Your task to perform on an android device: turn on priority inbox in the gmail app Image 0: 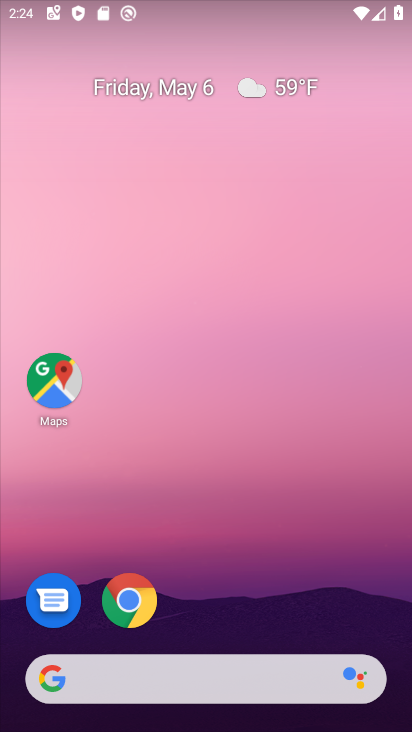
Step 0: drag from (210, 551) to (246, 49)
Your task to perform on an android device: turn on priority inbox in the gmail app Image 1: 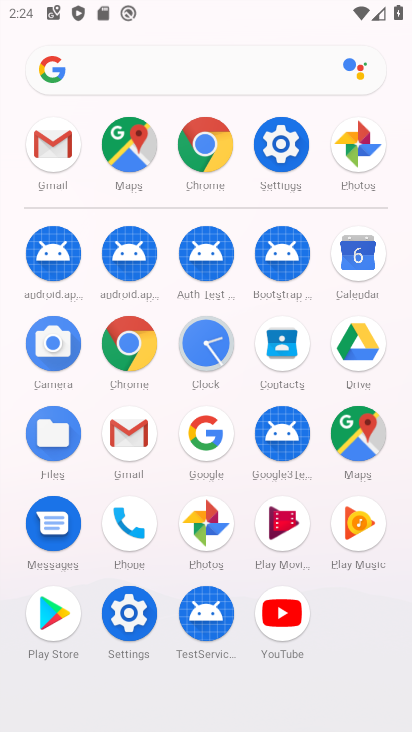
Step 1: click (127, 431)
Your task to perform on an android device: turn on priority inbox in the gmail app Image 2: 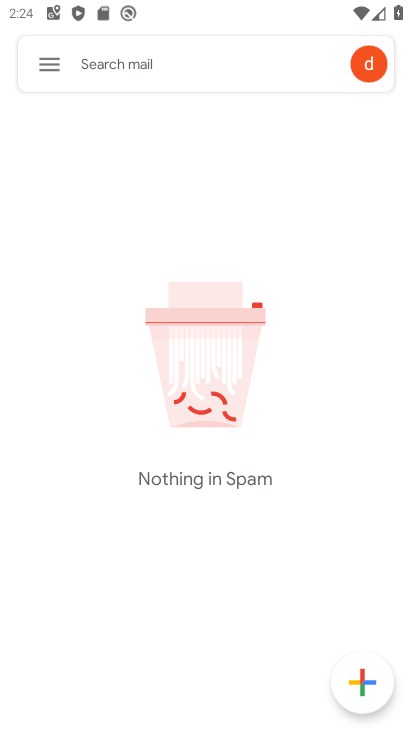
Step 2: click (53, 61)
Your task to perform on an android device: turn on priority inbox in the gmail app Image 3: 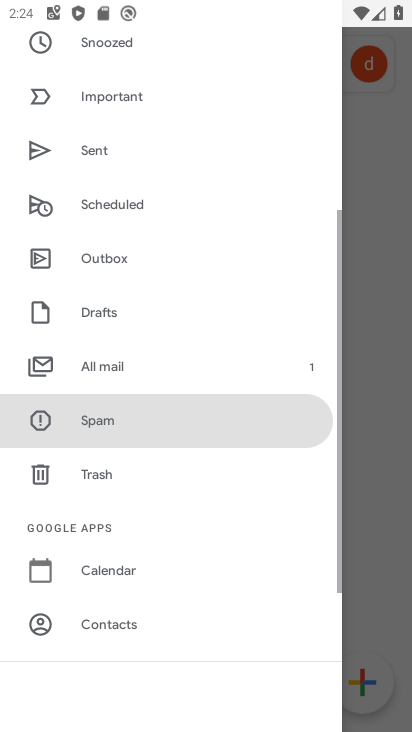
Step 3: drag from (196, 546) to (231, 140)
Your task to perform on an android device: turn on priority inbox in the gmail app Image 4: 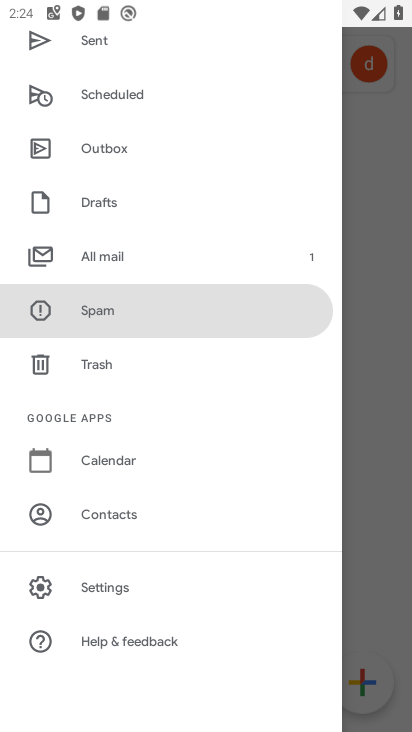
Step 4: click (117, 588)
Your task to perform on an android device: turn on priority inbox in the gmail app Image 5: 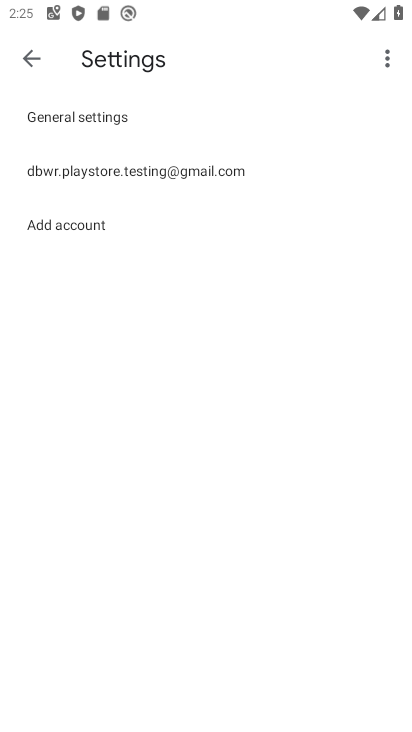
Step 5: click (117, 177)
Your task to perform on an android device: turn on priority inbox in the gmail app Image 6: 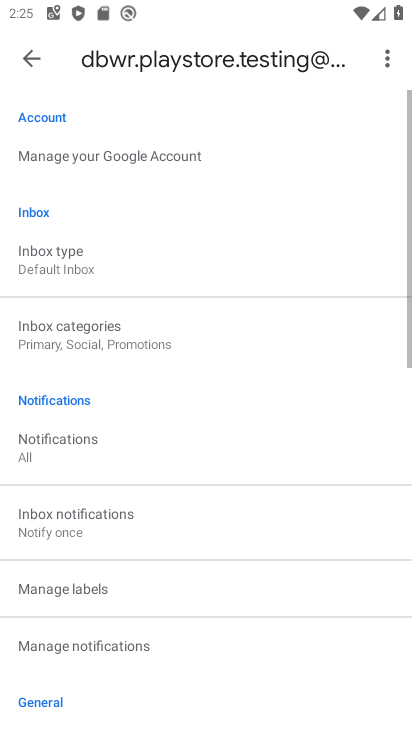
Step 6: drag from (186, 525) to (184, 86)
Your task to perform on an android device: turn on priority inbox in the gmail app Image 7: 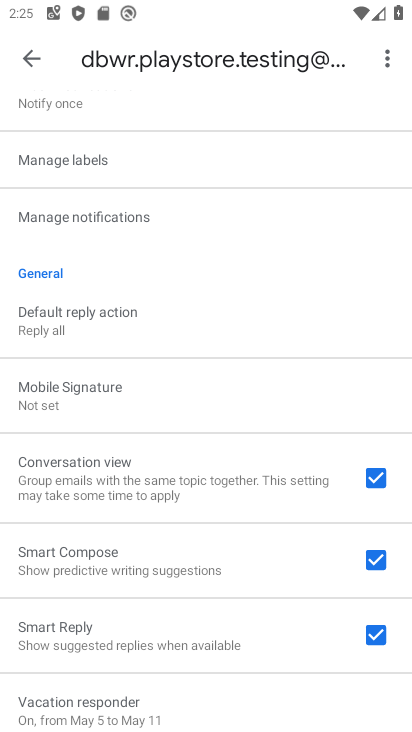
Step 7: drag from (198, 531) to (182, 70)
Your task to perform on an android device: turn on priority inbox in the gmail app Image 8: 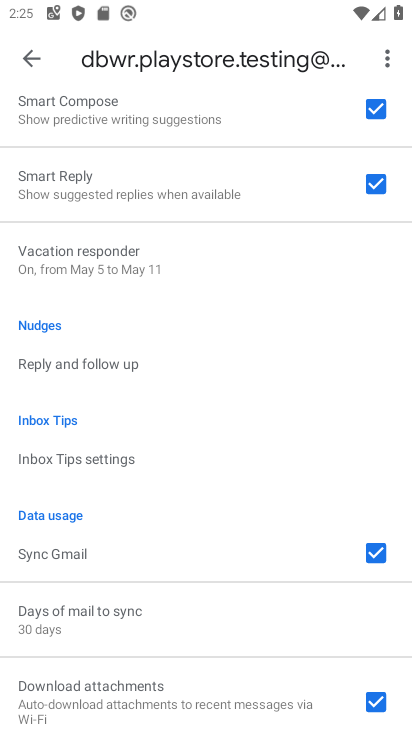
Step 8: drag from (202, 498) to (253, 710)
Your task to perform on an android device: turn on priority inbox in the gmail app Image 9: 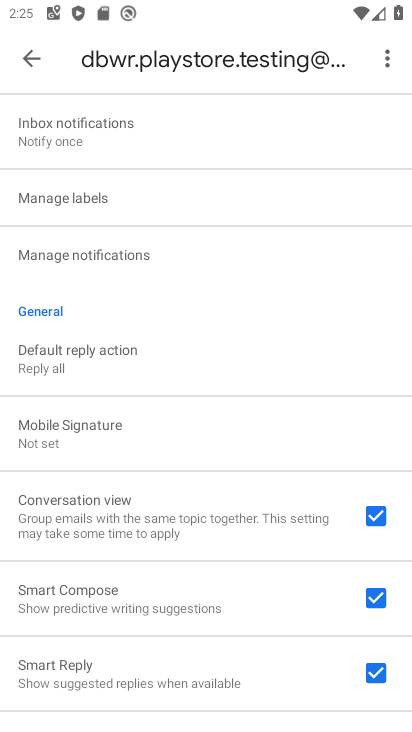
Step 9: drag from (142, 210) to (236, 706)
Your task to perform on an android device: turn on priority inbox in the gmail app Image 10: 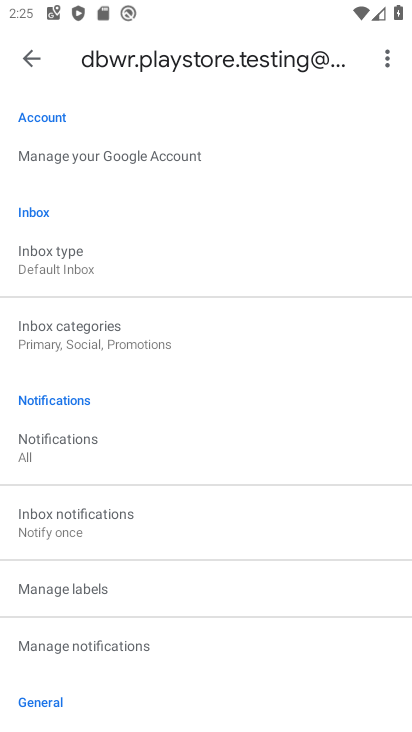
Step 10: drag from (160, 284) to (198, 495)
Your task to perform on an android device: turn on priority inbox in the gmail app Image 11: 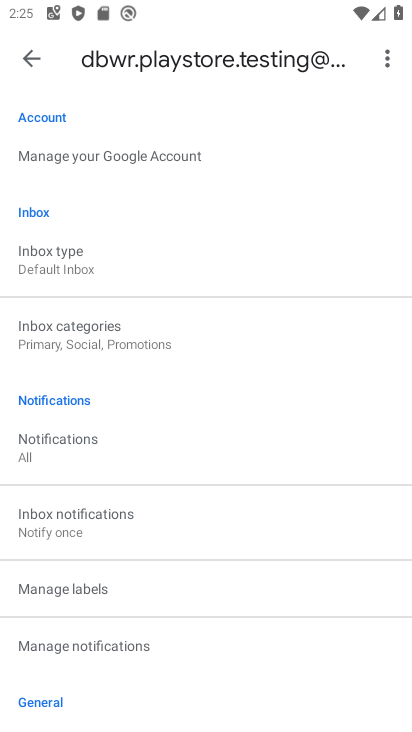
Step 11: click (82, 261)
Your task to perform on an android device: turn on priority inbox in the gmail app Image 12: 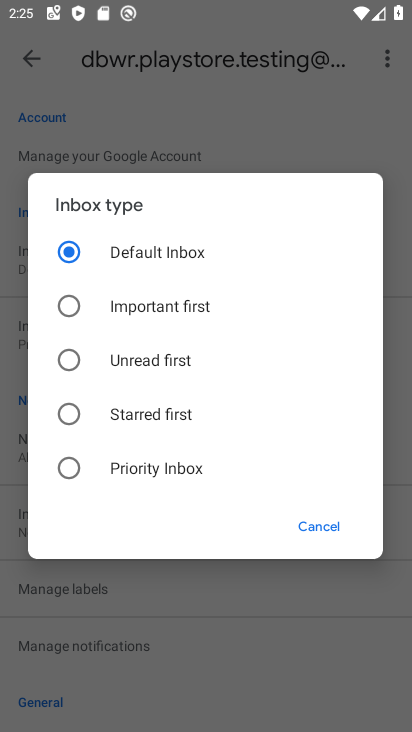
Step 12: click (72, 473)
Your task to perform on an android device: turn on priority inbox in the gmail app Image 13: 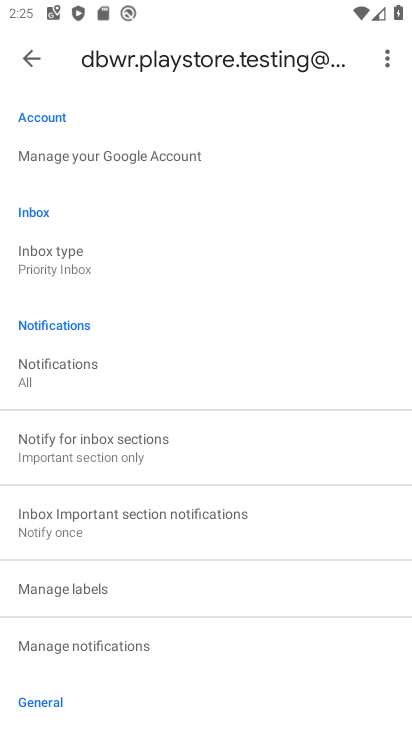
Step 13: task complete